Your task to perform on an android device: Open wifi settings Image 0: 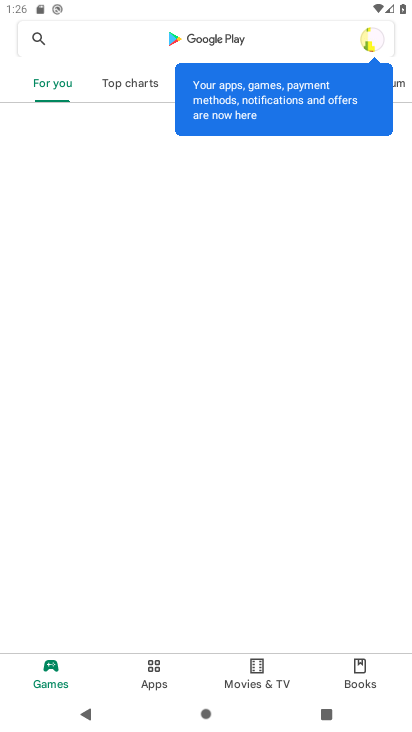
Step 0: press home button
Your task to perform on an android device: Open wifi settings Image 1: 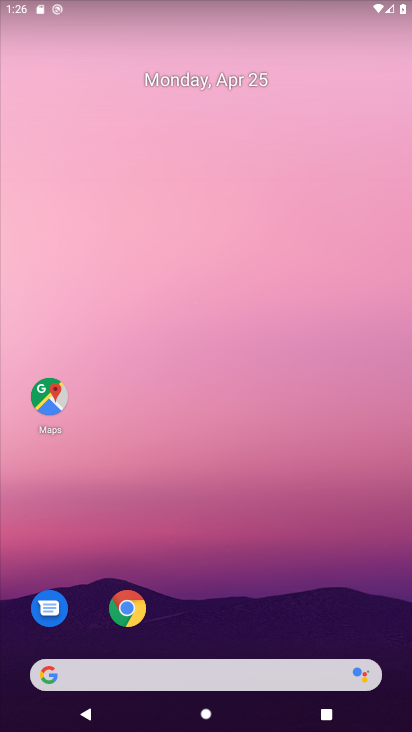
Step 1: drag from (355, 575) to (357, 116)
Your task to perform on an android device: Open wifi settings Image 2: 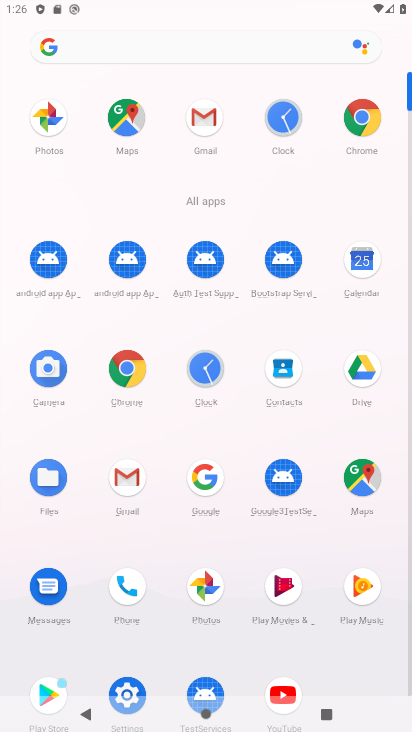
Step 2: drag from (237, 628) to (238, 367)
Your task to perform on an android device: Open wifi settings Image 3: 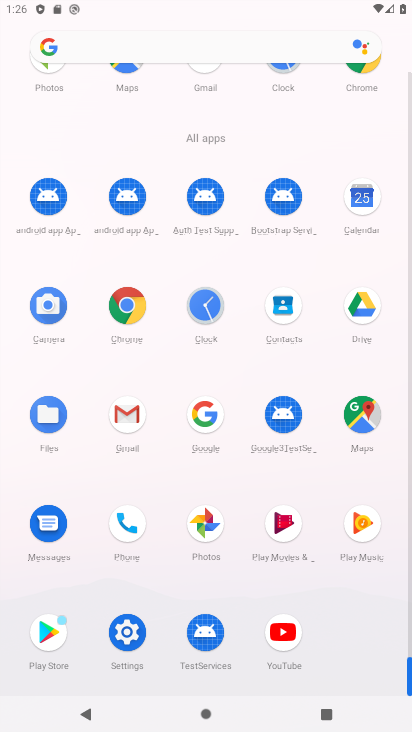
Step 3: click (121, 637)
Your task to perform on an android device: Open wifi settings Image 4: 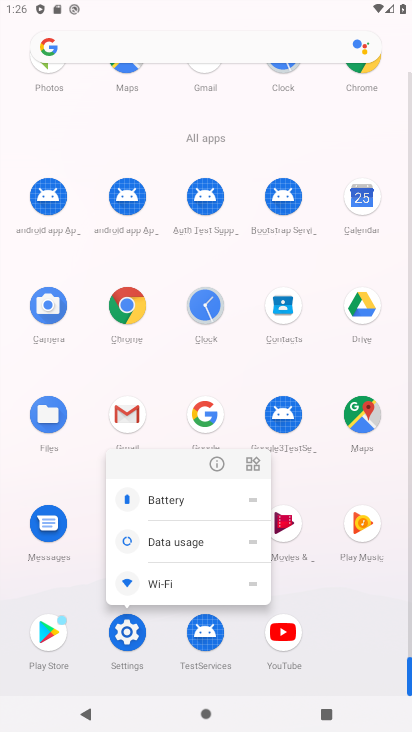
Step 4: click (125, 644)
Your task to perform on an android device: Open wifi settings Image 5: 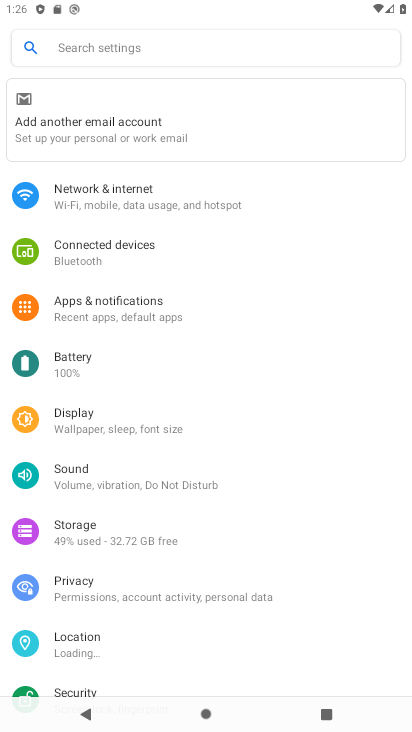
Step 5: click (200, 199)
Your task to perform on an android device: Open wifi settings Image 6: 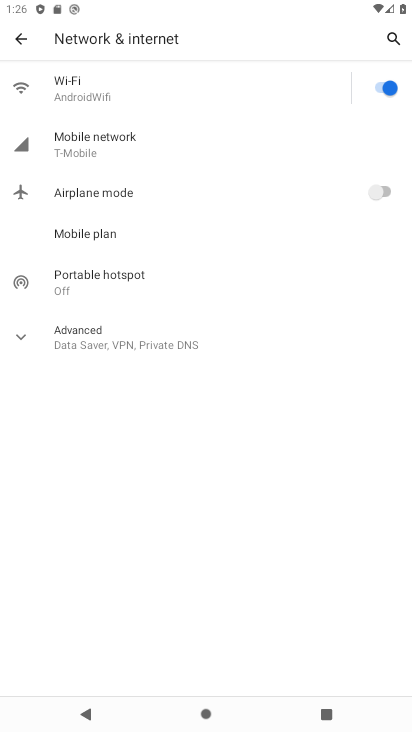
Step 6: click (181, 89)
Your task to perform on an android device: Open wifi settings Image 7: 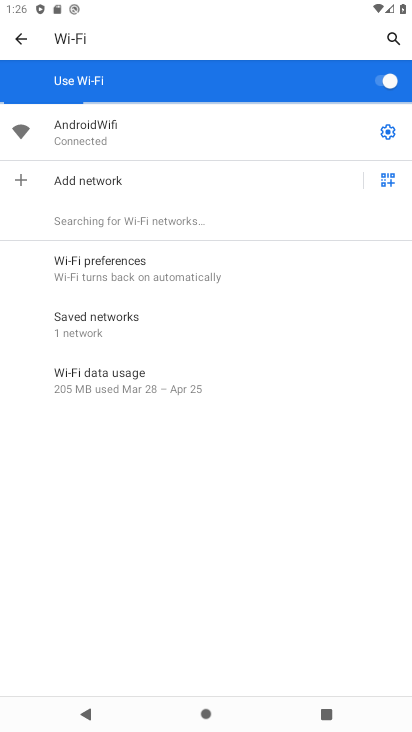
Step 7: task complete